Your task to perform on an android device: Go to sound settings Image 0: 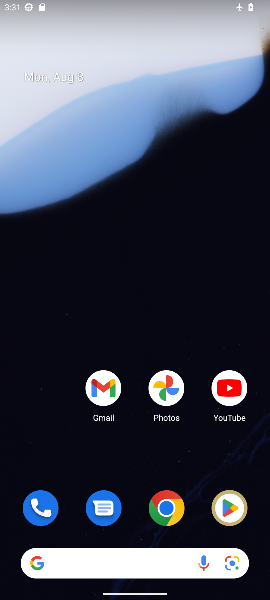
Step 0: drag from (134, 454) to (101, 18)
Your task to perform on an android device: Go to sound settings Image 1: 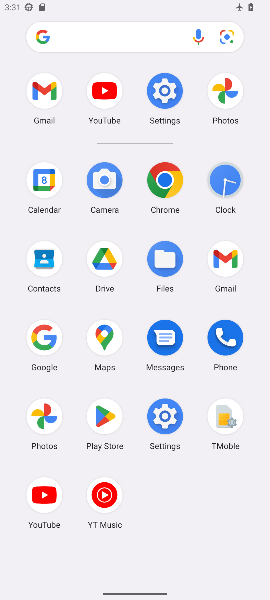
Step 1: click (166, 88)
Your task to perform on an android device: Go to sound settings Image 2: 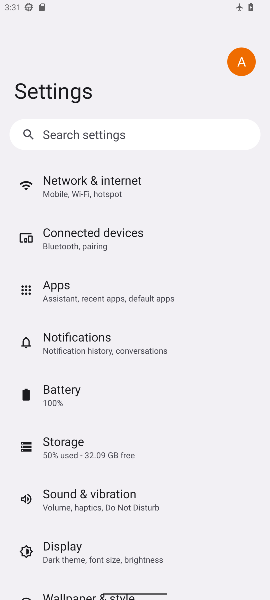
Step 2: click (69, 491)
Your task to perform on an android device: Go to sound settings Image 3: 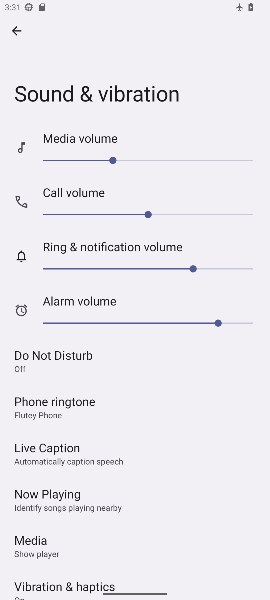
Step 3: task complete